Your task to perform on an android device: refresh tabs in the chrome app Image 0: 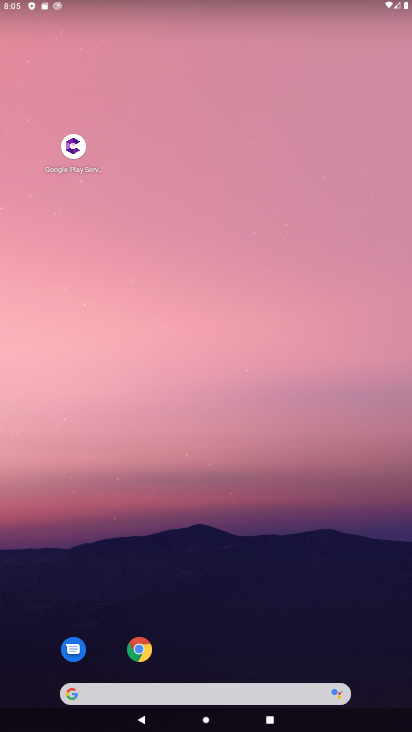
Step 0: drag from (296, 470) to (259, 120)
Your task to perform on an android device: refresh tabs in the chrome app Image 1: 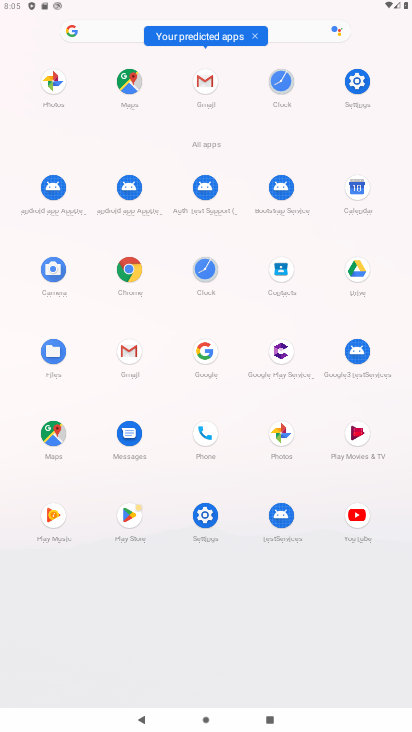
Step 1: click (127, 270)
Your task to perform on an android device: refresh tabs in the chrome app Image 2: 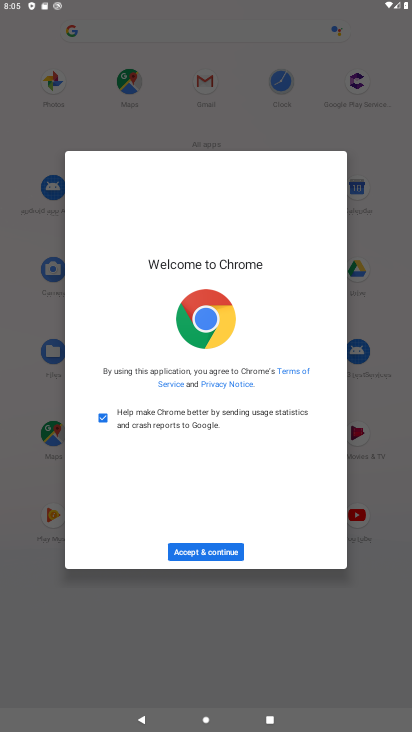
Step 2: click (197, 556)
Your task to perform on an android device: refresh tabs in the chrome app Image 3: 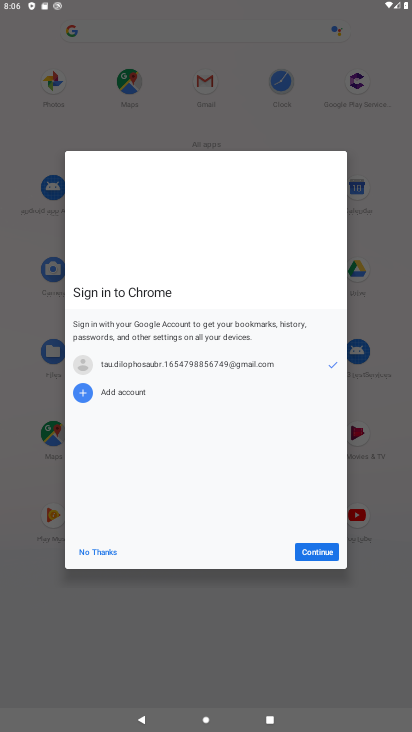
Step 3: click (306, 555)
Your task to perform on an android device: refresh tabs in the chrome app Image 4: 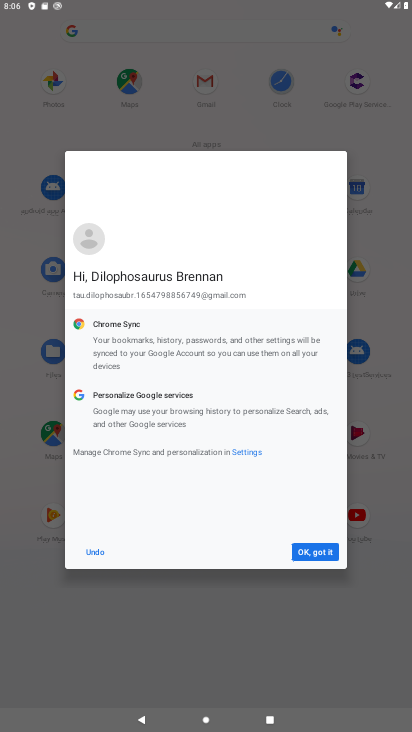
Step 4: click (306, 555)
Your task to perform on an android device: refresh tabs in the chrome app Image 5: 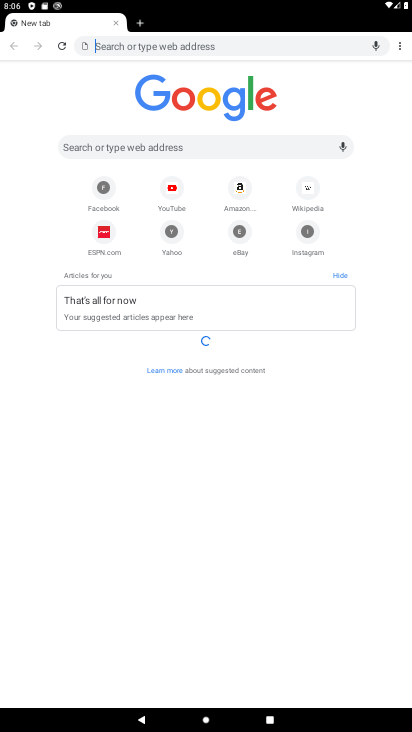
Step 5: click (397, 47)
Your task to perform on an android device: refresh tabs in the chrome app Image 6: 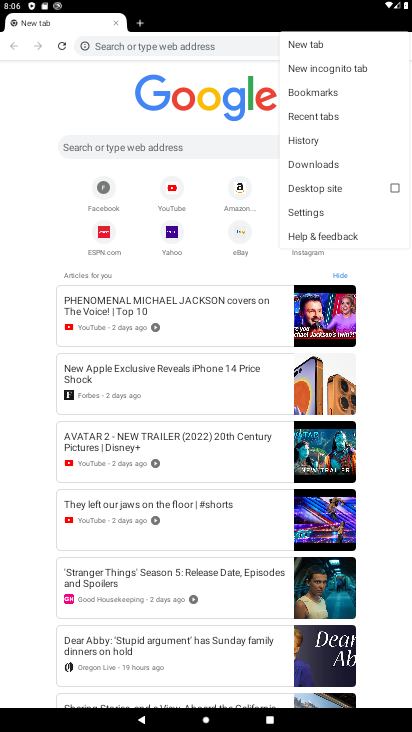
Step 6: click (318, 220)
Your task to perform on an android device: refresh tabs in the chrome app Image 7: 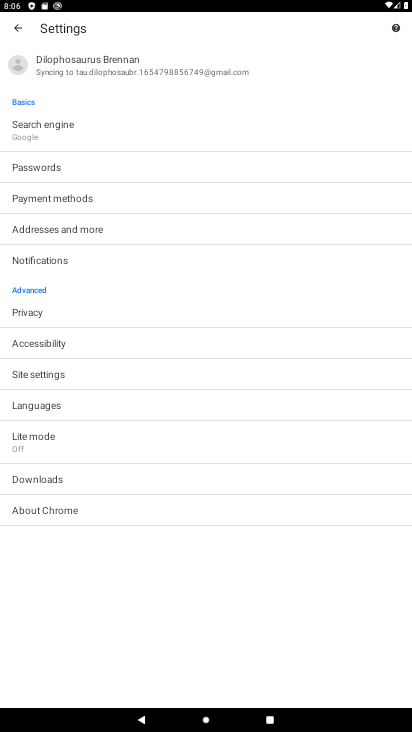
Step 7: task complete